Your task to perform on an android device: Go to location settings Image 0: 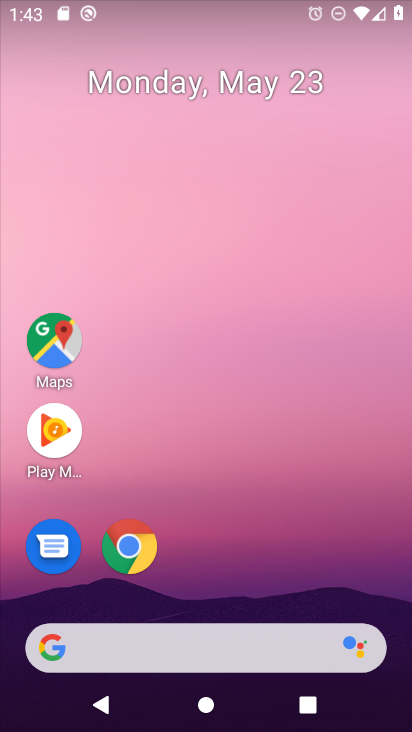
Step 0: drag from (242, 590) to (289, 177)
Your task to perform on an android device: Go to location settings Image 1: 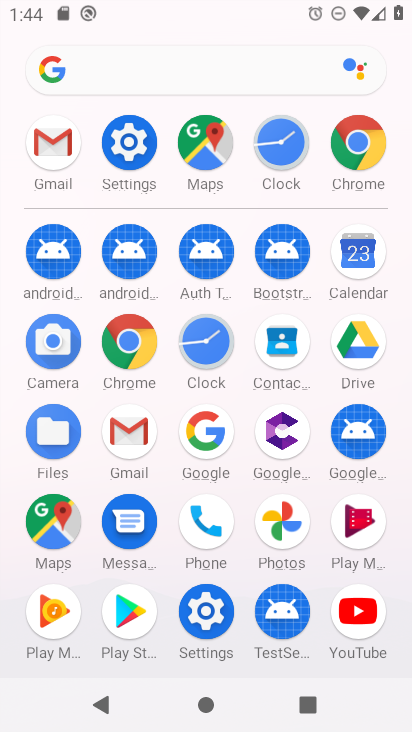
Step 1: click (141, 165)
Your task to perform on an android device: Go to location settings Image 2: 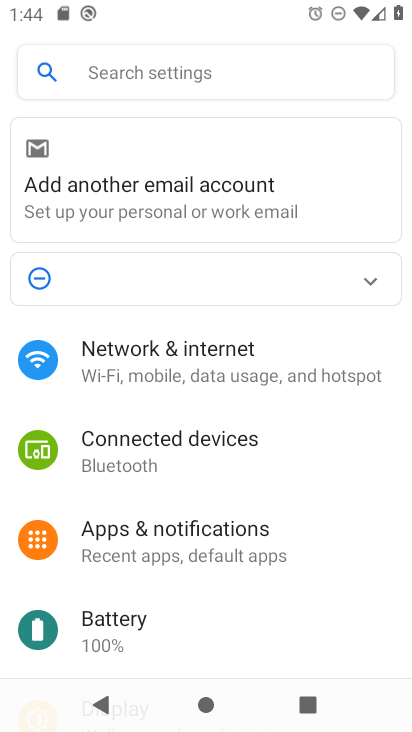
Step 2: drag from (230, 583) to (284, 83)
Your task to perform on an android device: Go to location settings Image 3: 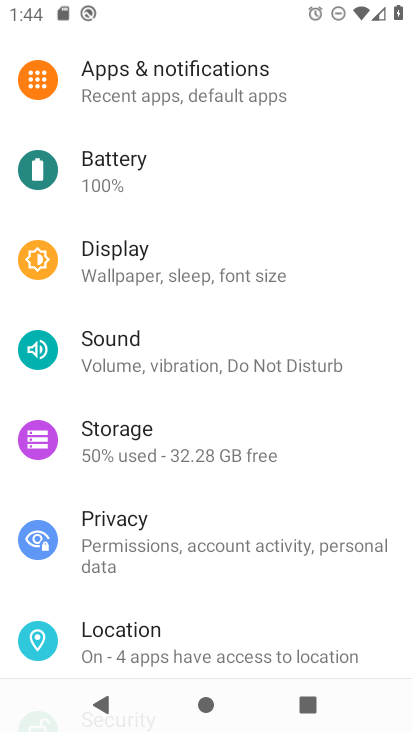
Step 3: click (260, 643)
Your task to perform on an android device: Go to location settings Image 4: 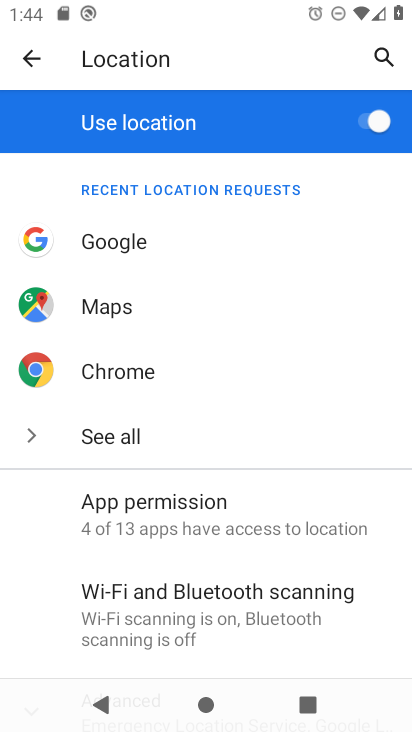
Step 4: task complete